Your task to perform on an android device: turn off wifi Image 0: 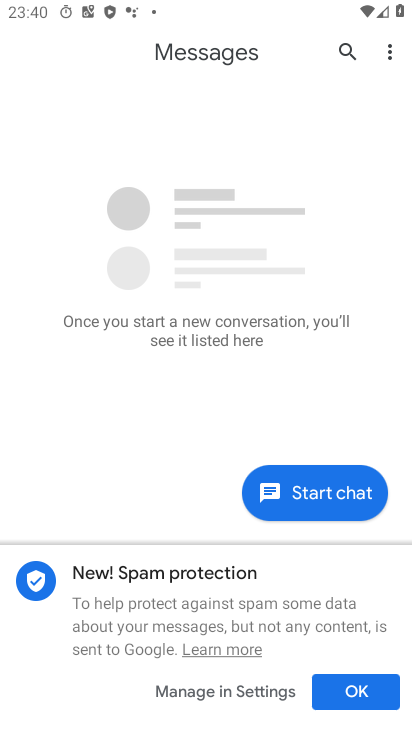
Step 0: press home button
Your task to perform on an android device: turn off wifi Image 1: 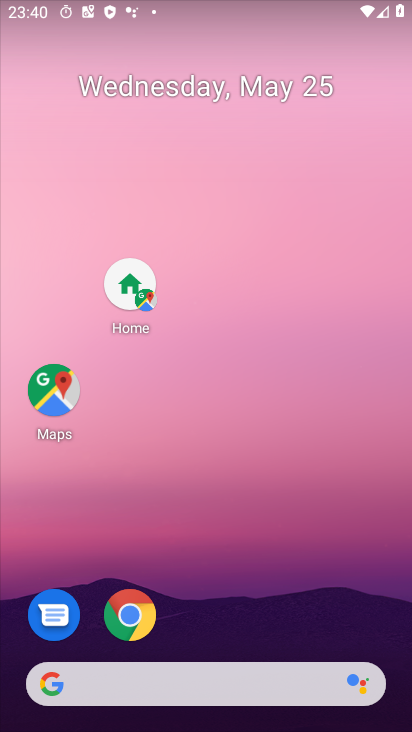
Step 1: drag from (305, 474) to (294, 90)
Your task to perform on an android device: turn off wifi Image 2: 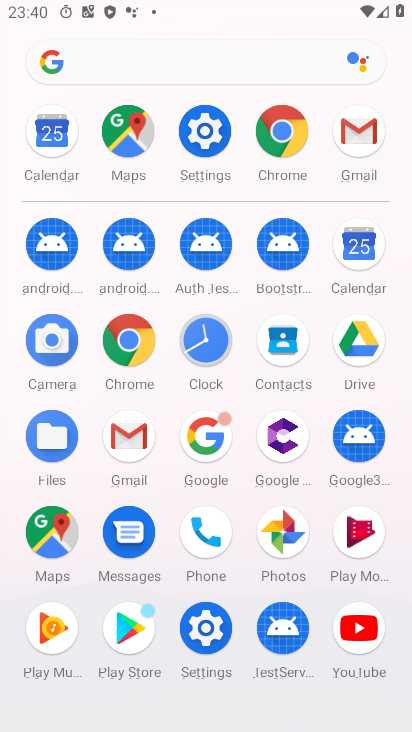
Step 2: click (206, 151)
Your task to perform on an android device: turn off wifi Image 3: 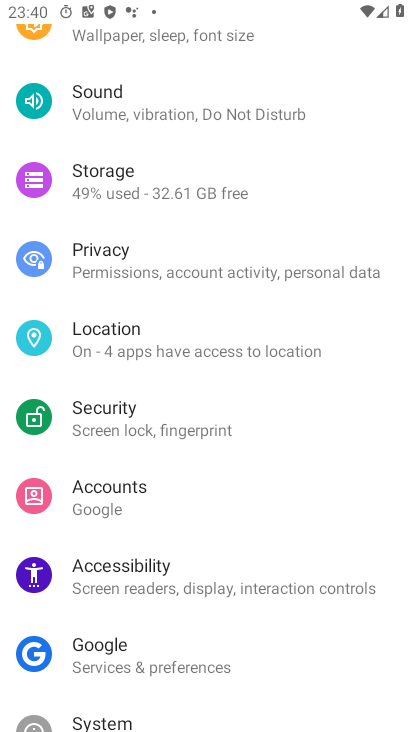
Step 3: drag from (167, 60) to (231, 731)
Your task to perform on an android device: turn off wifi Image 4: 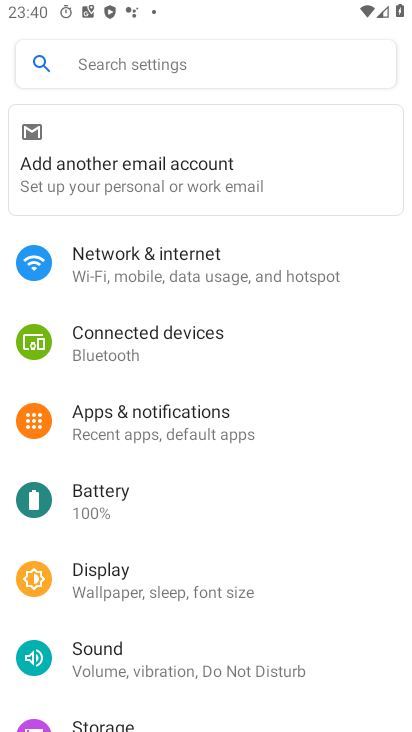
Step 4: click (137, 275)
Your task to perform on an android device: turn off wifi Image 5: 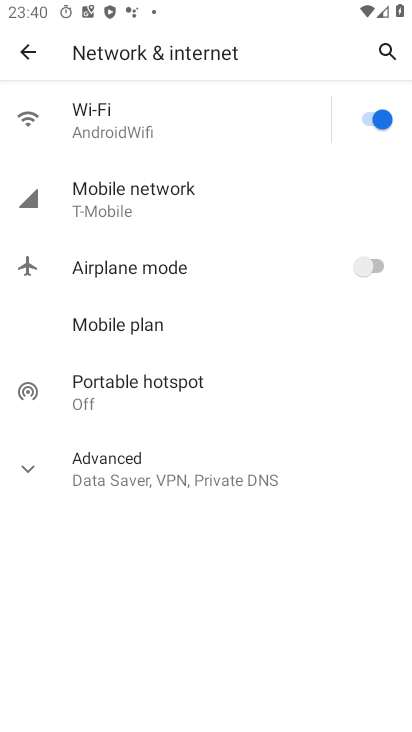
Step 5: click (379, 117)
Your task to perform on an android device: turn off wifi Image 6: 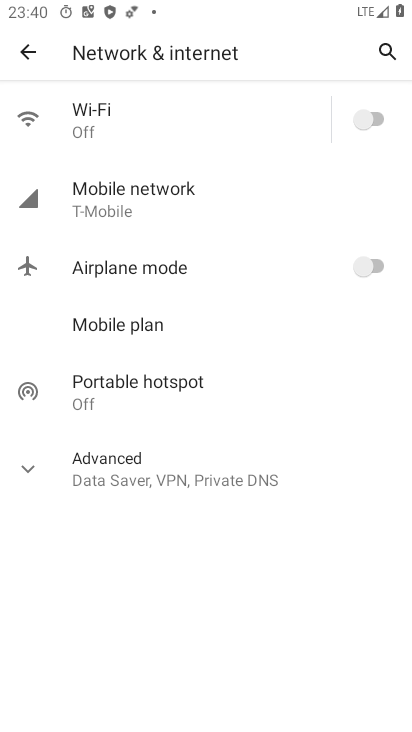
Step 6: task complete